Your task to perform on an android device: Open settings Image 0: 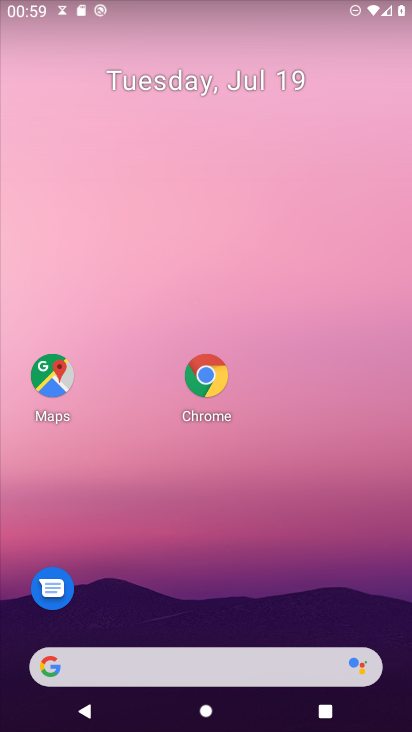
Step 0: press home button
Your task to perform on an android device: Open settings Image 1: 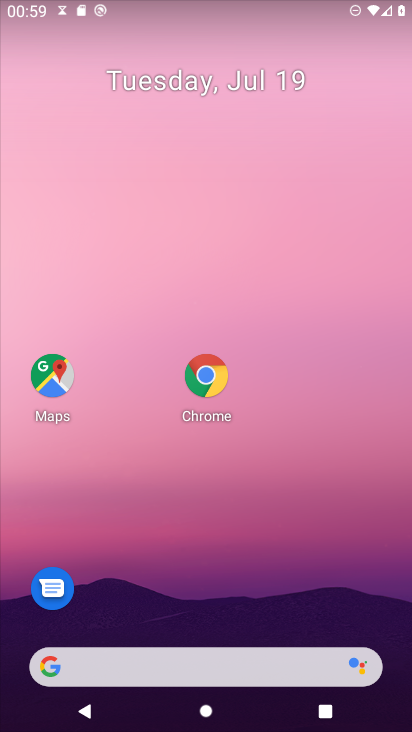
Step 1: drag from (351, 558) to (217, 714)
Your task to perform on an android device: Open settings Image 2: 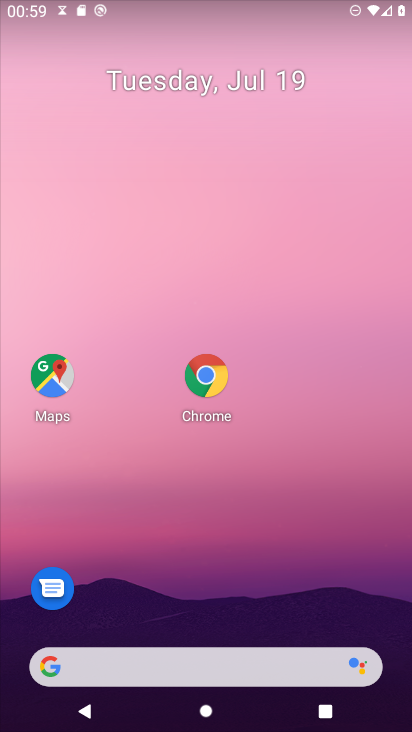
Step 2: drag from (284, 562) to (248, 99)
Your task to perform on an android device: Open settings Image 3: 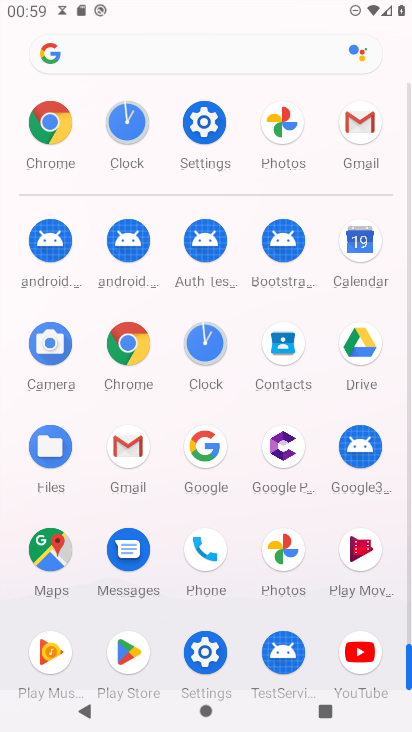
Step 3: click (203, 119)
Your task to perform on an android device: Open settings Image 4: 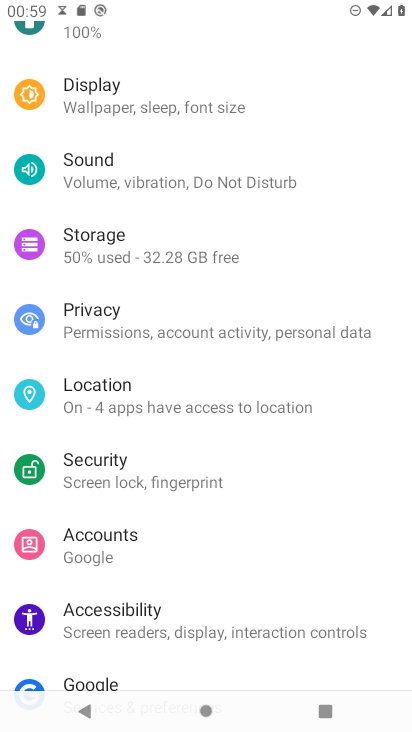
Step 4: task complete